Your task to perform on an android device: Open settings on Google Maps Image 0: 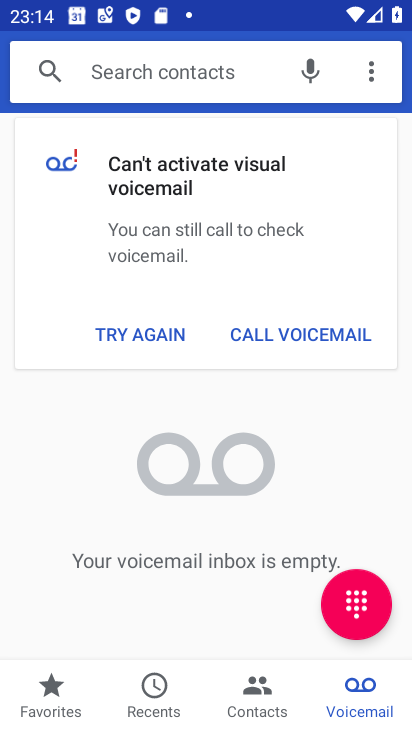
Step 0: press home button
Your task to perform on an android device: Open settings on Google Maps Image 1: 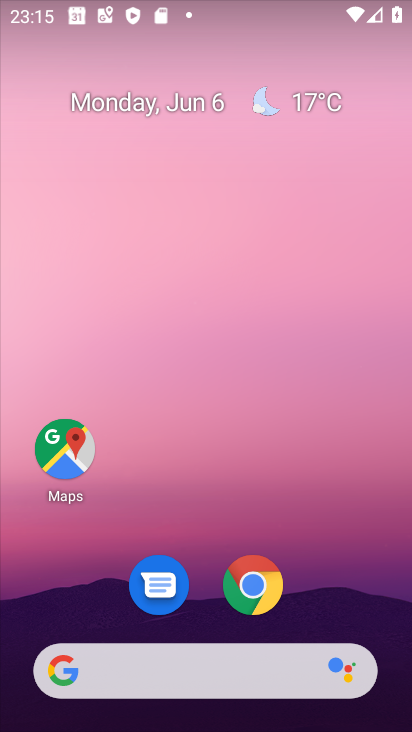
Step 1: click (67, 463)
Your task to perform on an android device: Open settings on Google Maps Image 2: 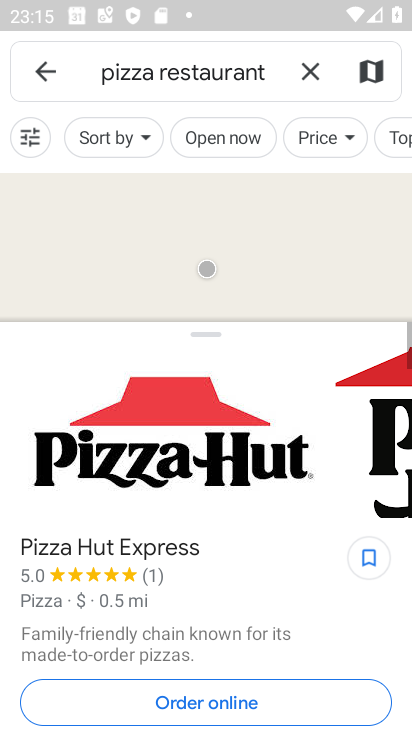
Step 2: click (311, 69)
Your task to perform on an android device: Open settings on Google Maps Image 3: 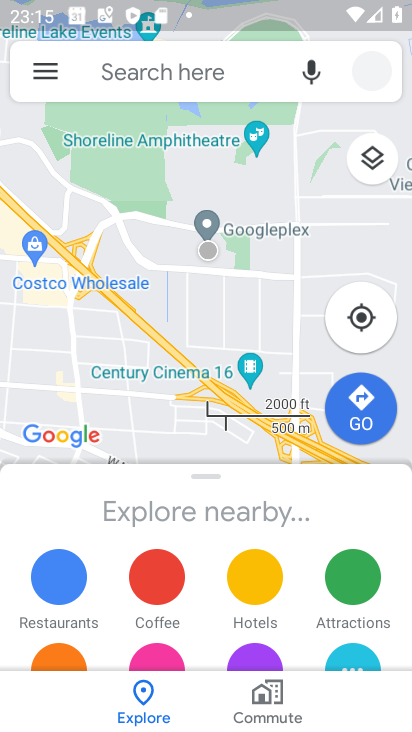
Step 3: click (47, 67)
Your task to perform on an android device: Open settings on Google Maps Image 4: 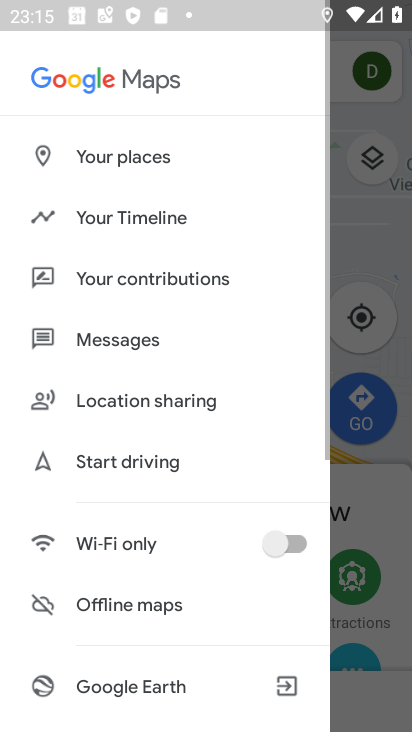
Step 4: click (52, 76)
Your task to perform on an android device: Open settings on Google Maps Image 5: 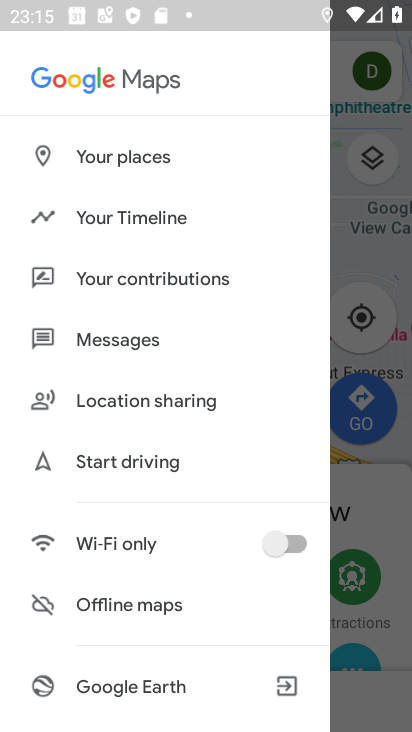
Step 5: drag from (190, 500) to (221, 102)
Your task to perform on an android device: Open settings on Google Maps Image 6: 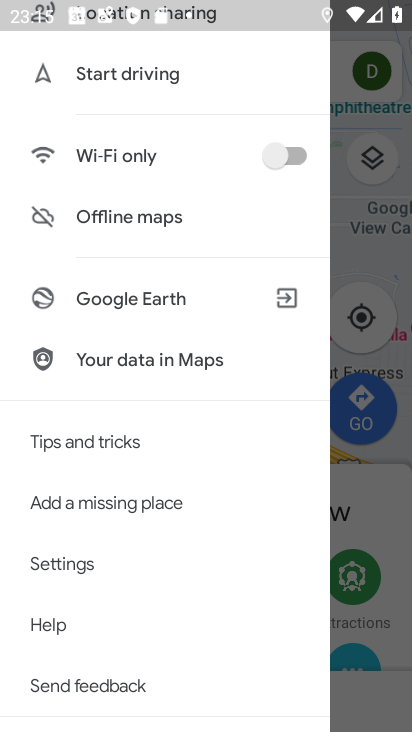
Step 6: click (104, 568)
Your task to perform on an android device: Open settings on Google Maps Image 7: 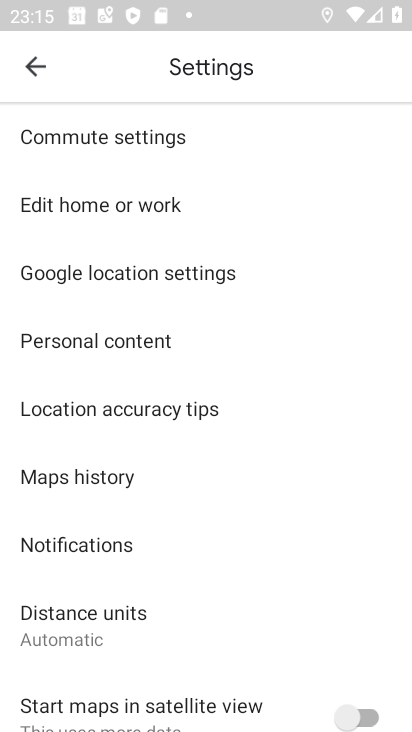
Step 7: task complete